Your task to perform on an android device: Open Yahoo.com Image 0: 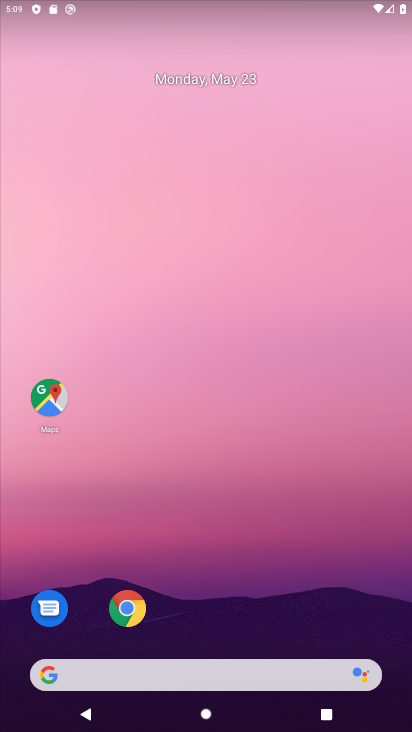
Step 0: click (128, 609)
Your task to perform on an android device: Open Yahoo.com Image 1: 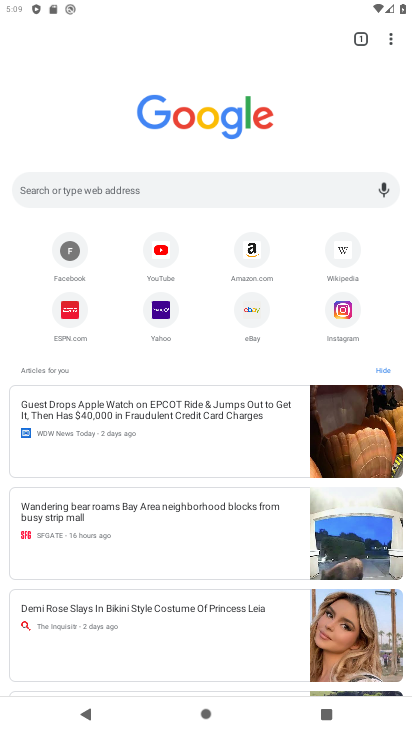
Step 1: click (160, 324)
Your task to perform on an android device: Open Yahoo.com Image 2: 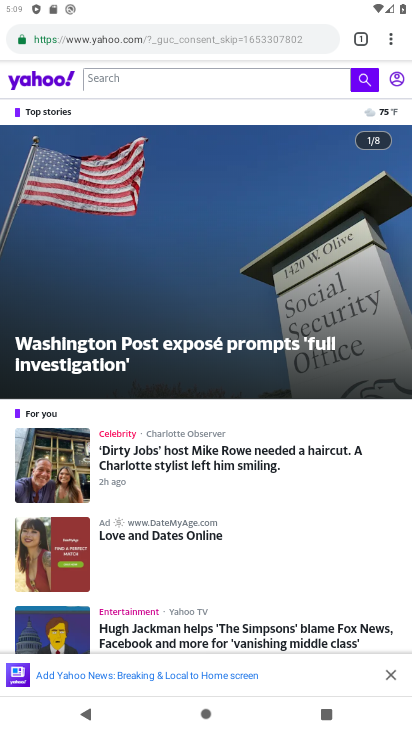
Step 2: task complete